Your task to perform on an android device: change timer sound Image 0: 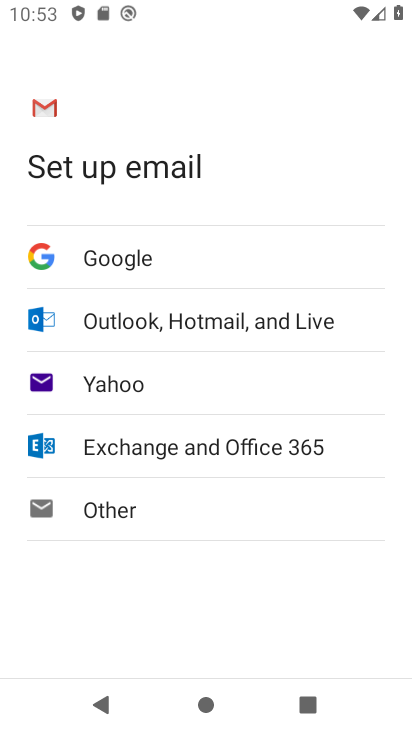
Step 0: press home button
Your task to perform on an android device: change timer sound Image 1: 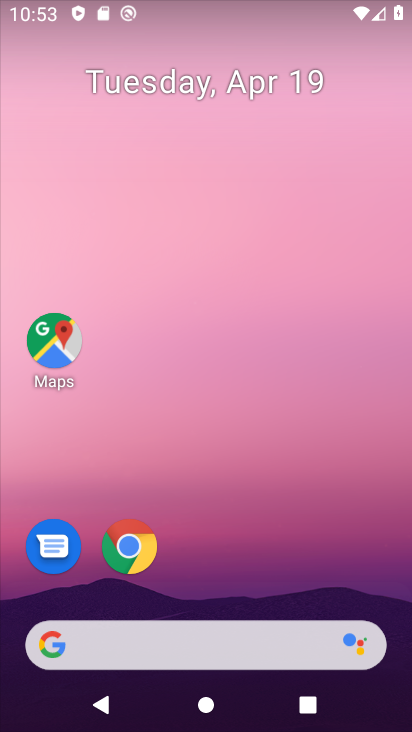
Step 1: drag from (242, 606) to (370, 81)
Your task to perform on an android device: change timer sound Image 2: 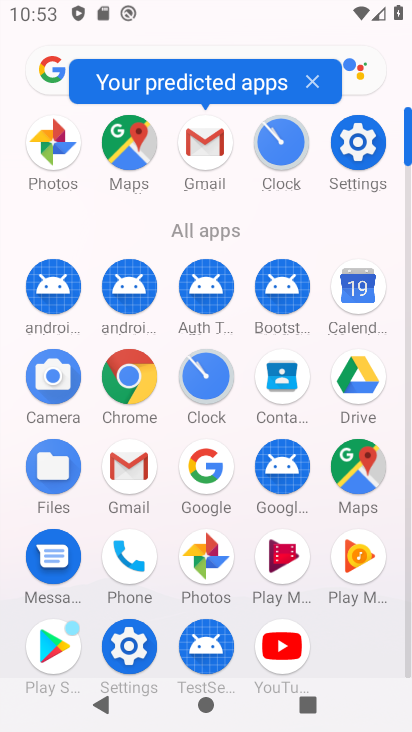
Step 2: click (286, 160)
Your task to perform on an android device: change timer sound Image 3: 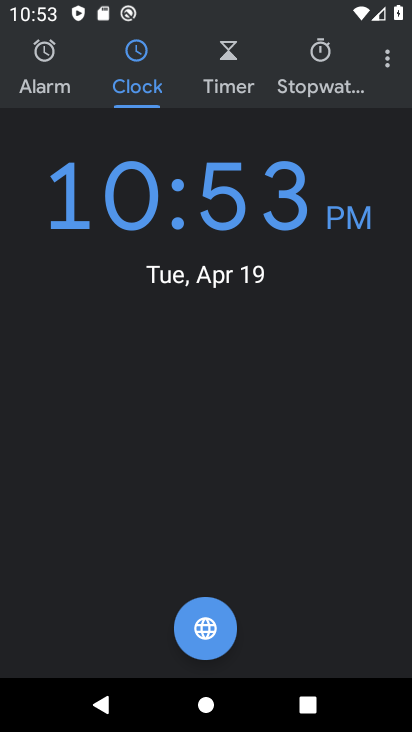
Step 3: click (394, 58)
Your task to perform on an android device: change timer sound Image 4: 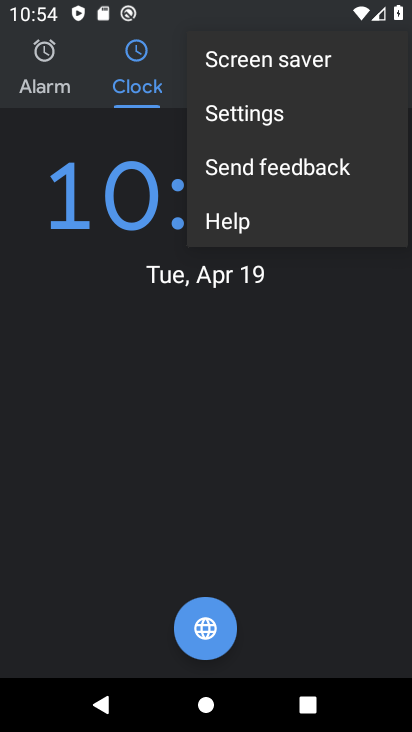
Step 4: click (292, 119)
Your task to perform on an android device: change timer sound Image 5: 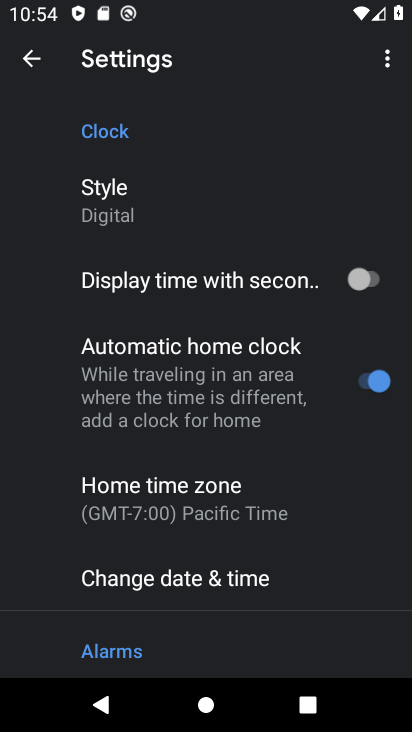
Step 5: drag from (226, 614) to (236, 62)
Your task to perform on an android device: change timer sound Image 6: 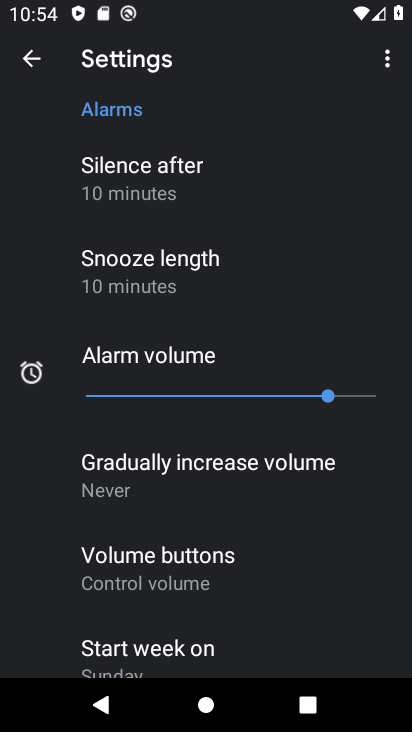
Step 6: drag from (148, 597) to (166, 182)
Your task to perform on an android device: change timer sound Image 7: 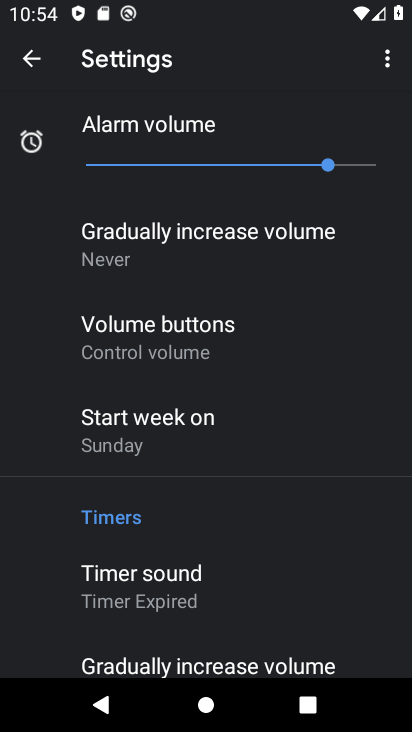
Step 7: click (145, 587)
Your task to perform on an android device: change timer sound Image 8: 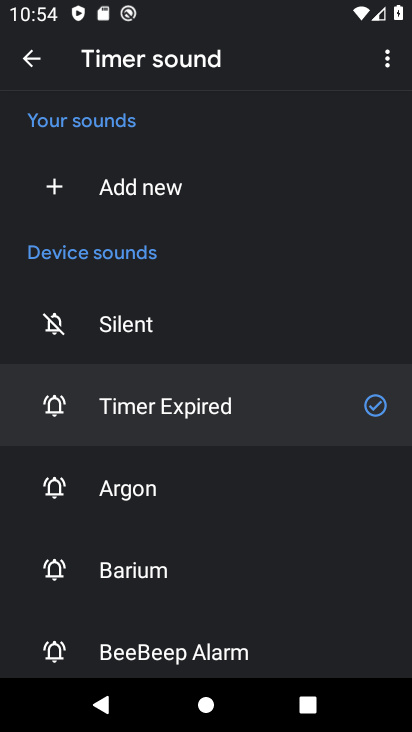
Step 8: click (175, 595)
Your task to perform on an android device: change timer sound Image 9: 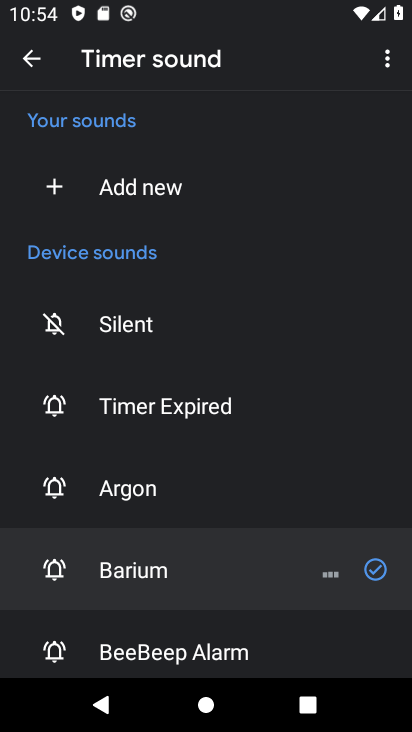
Step 9: task complete